Your task to perform on an android device: open a new tab in the chrome app Image 0: 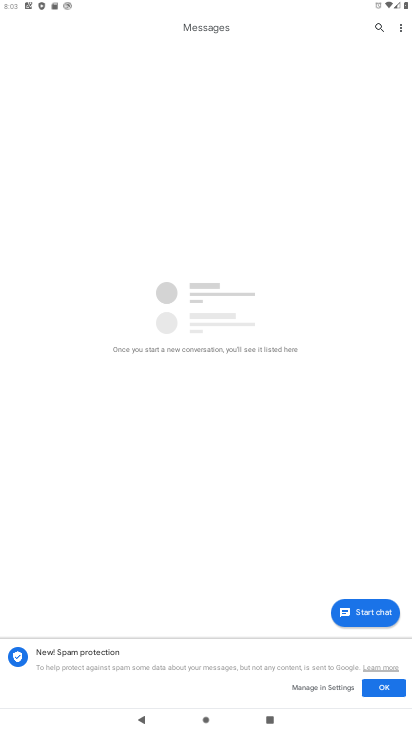
Step 0: press home button
Your task to perform on an android device: open a new tab in the chrome app Image 1: 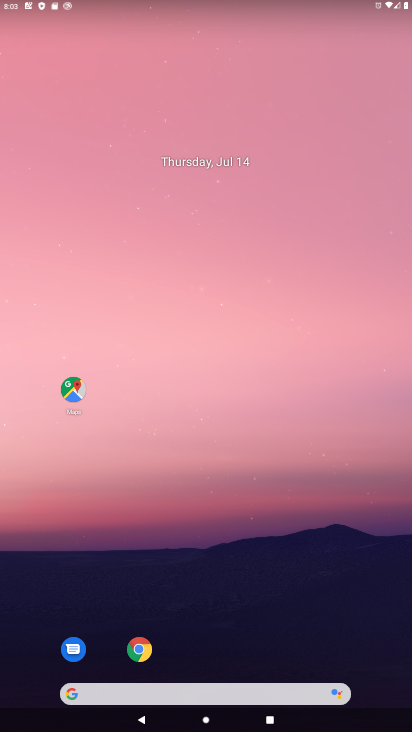
Step 1: click (138, 648)
Your task to perform on an android device: open a new tab in the chrome app Image 2: 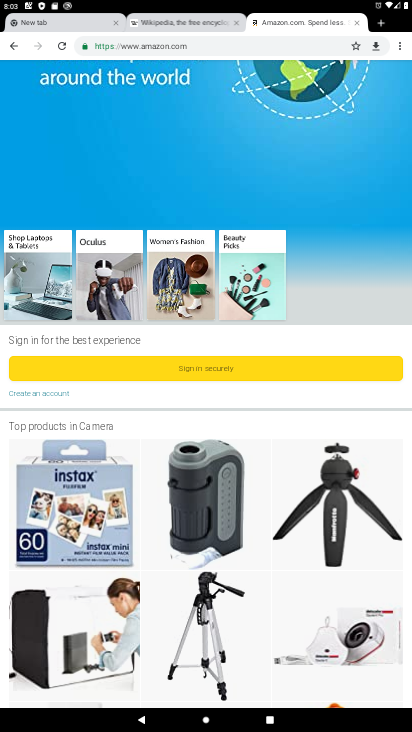
Step 2: click (381, 24)
Your task to perform on an android device: open a new tab in the chrome app Image 3: 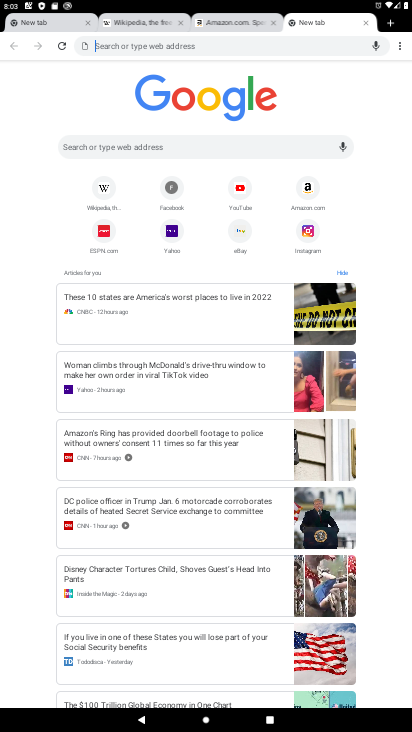
Step 3: task complete